Your task to perform on an android device: search for 2021 honda civic Image 0: 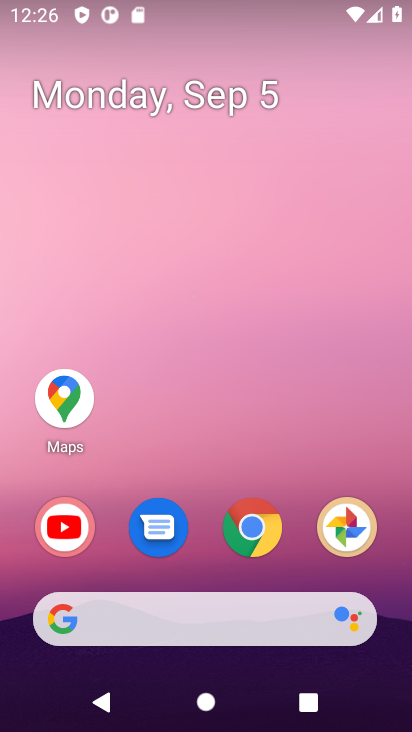
Step 0: click (250, 527)
Your task to perform on an android device: search for 2021 honda civic Image 1: 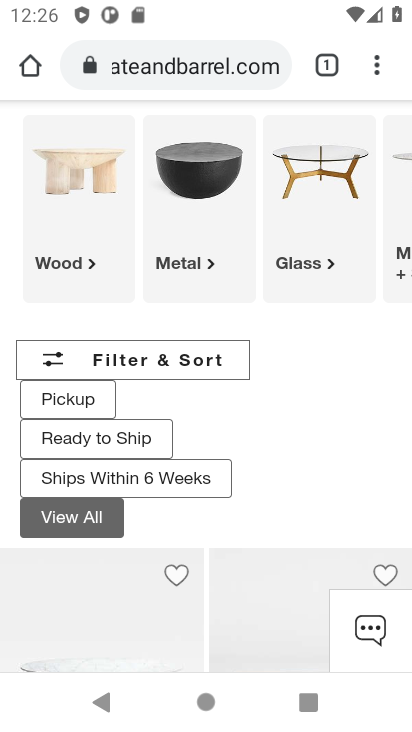
Step 1: click (207, 61)
Your task to perform on an android device: search for 2021 honda civic Image 2: 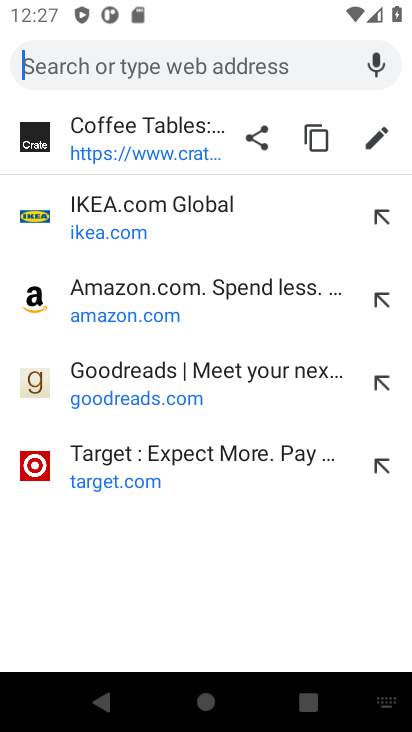
Step 2: type "2021 honda civicx"
Your task to perform on an android device: search for 2021 honda civic Image 3: 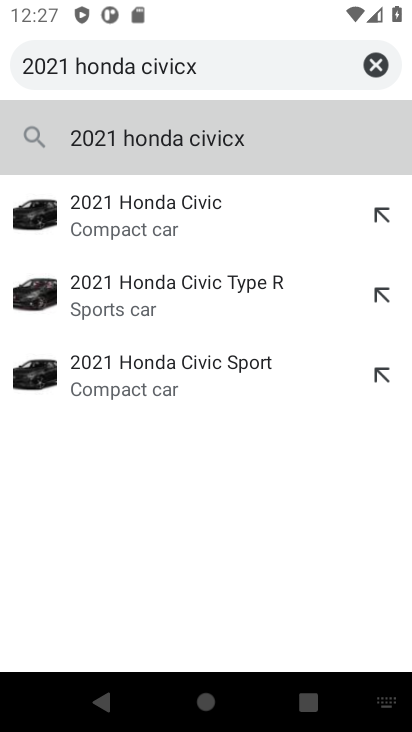
Step 3: click (170, 211)
Your task to perform on an android device: search for 2021 honda civic Image 4: 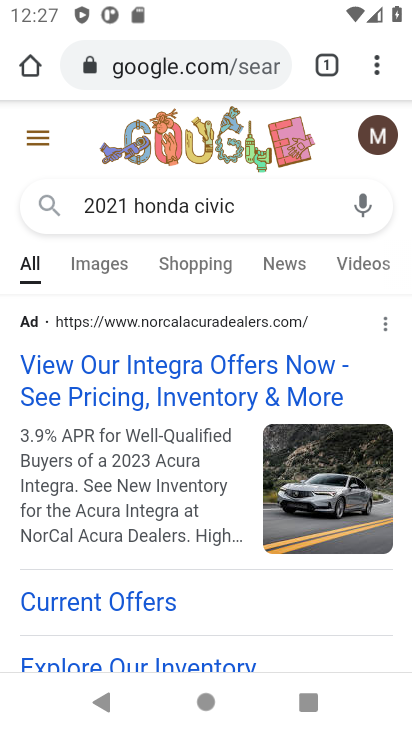
Step 4: task complete